Your task to perform on an android device: Show me recent news Image 0: 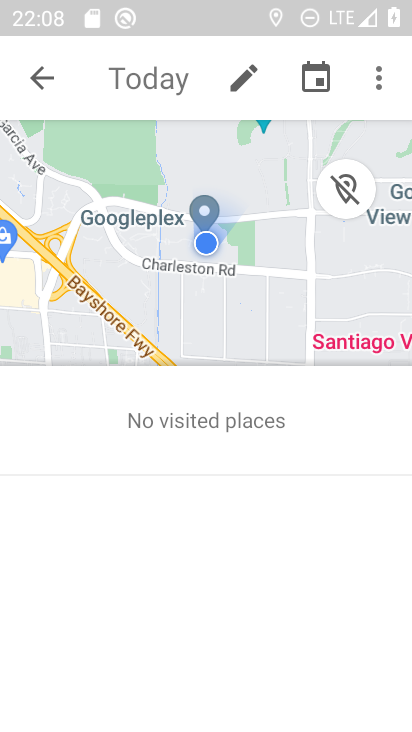
Step 0: press home button
Your task to perform on an android device: Show me recent news Image 1: 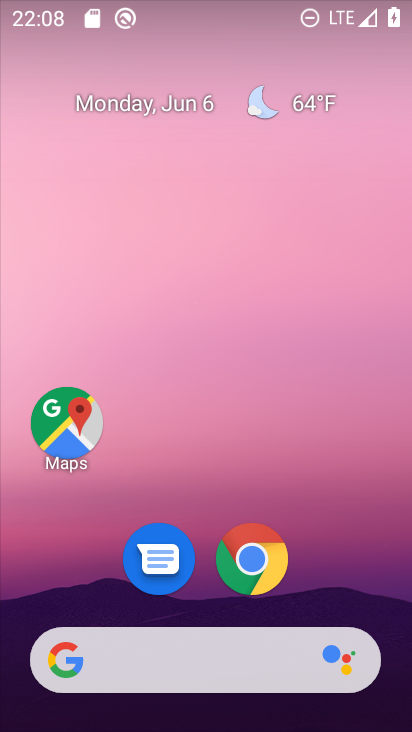
Step 1: task complete